Your task to perform on an android device: Empty the shopping cart on amazon.com. Image 0: 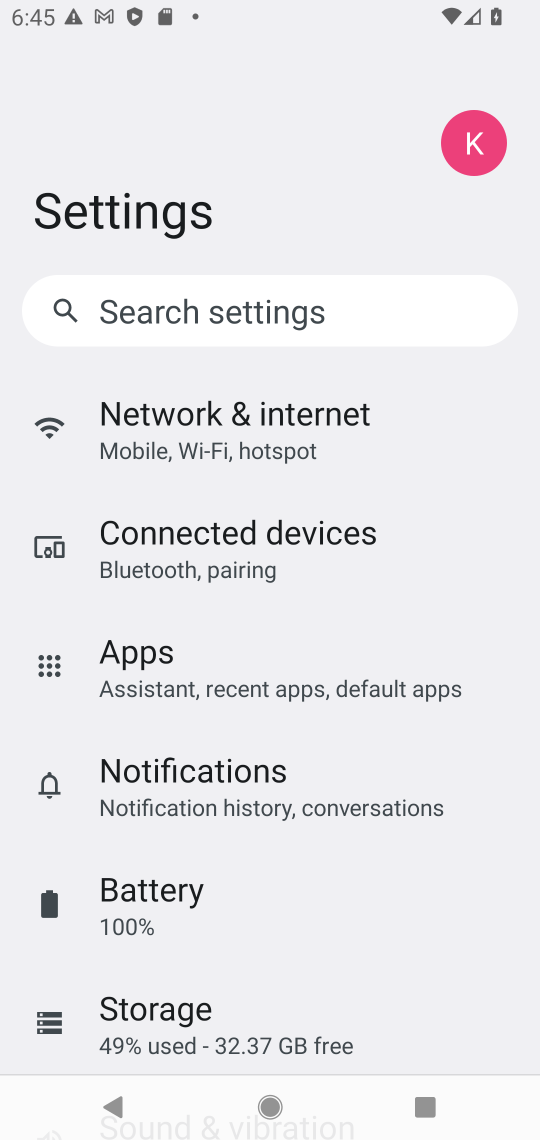
Step 0: press home button
Your task to perform on an android device: Empty the shopping cart on amazon.com. Image 1: 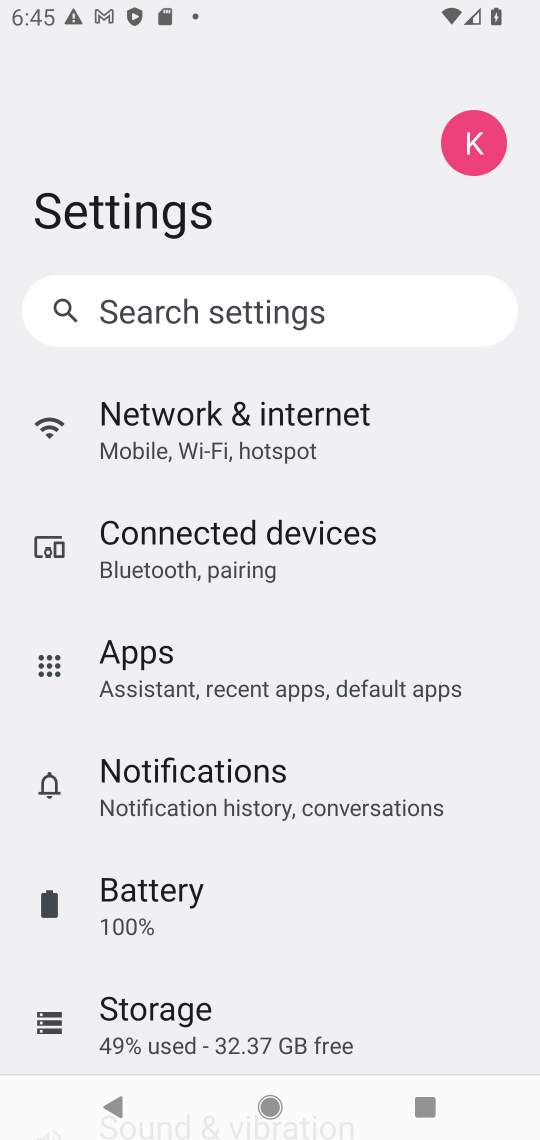
Step 1: press home button
Your task to perform on an android device: Empty the shopping cart on amazon.com. Image 2: 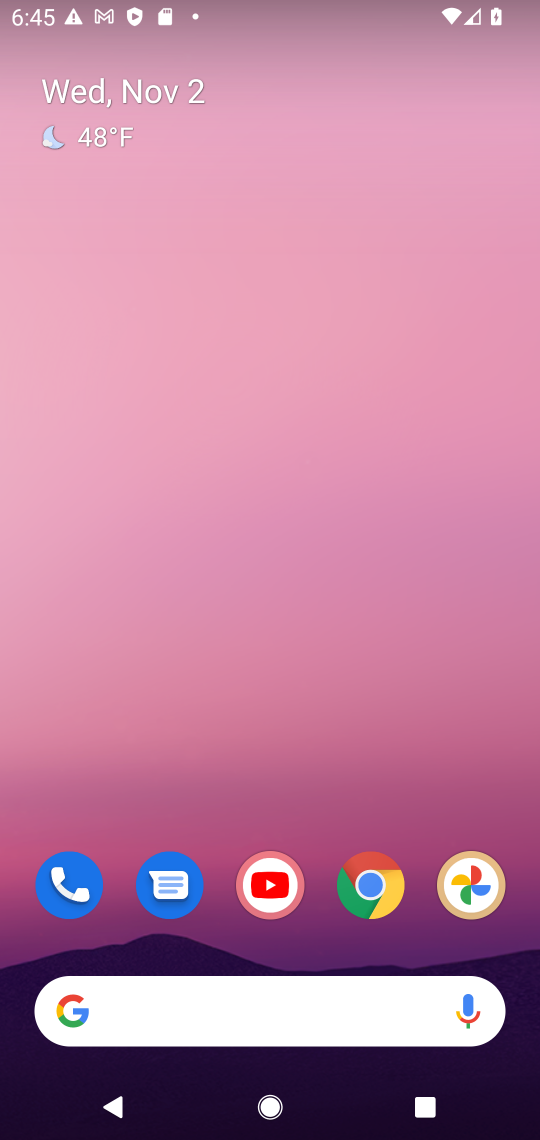
Step 2: click (369, 887)
Your task to perform on an android device: Empty the shopping cart on amazon.com. Image 3: 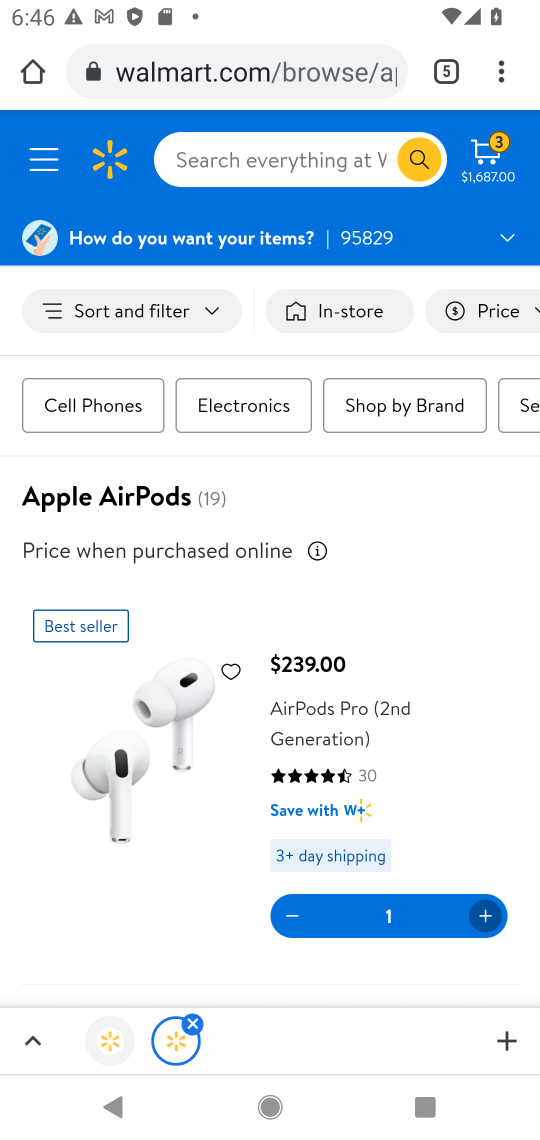
Step 3: click (501, 78)
Your task to perform on an android device: Empty the shopping cart on amazon.com. Image 4: 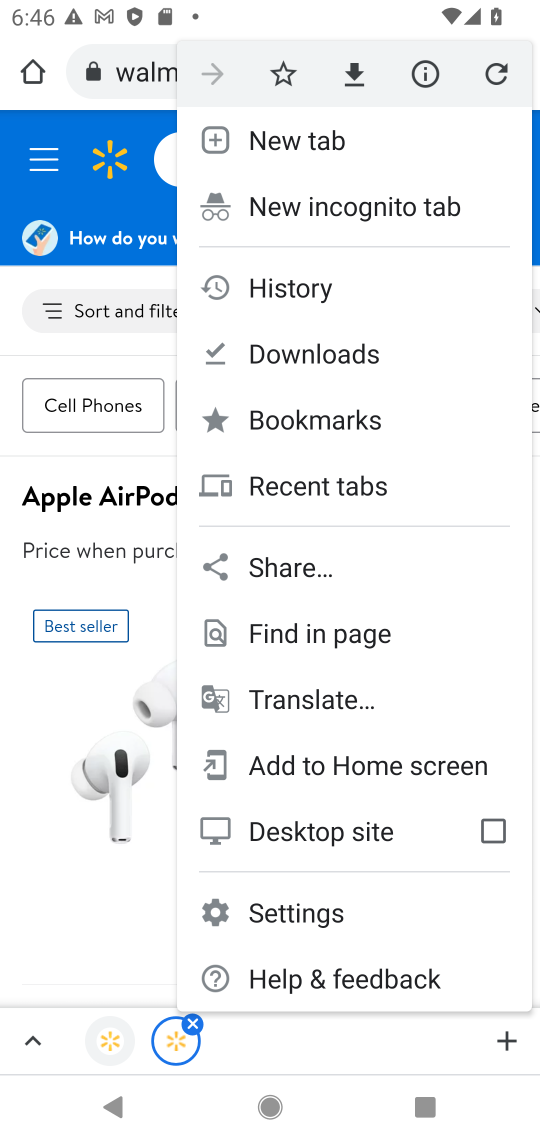
Step 4: click (309, 137)
Your task to perform on an android device: Empty the shopping cart on amazon.com. Image 5: 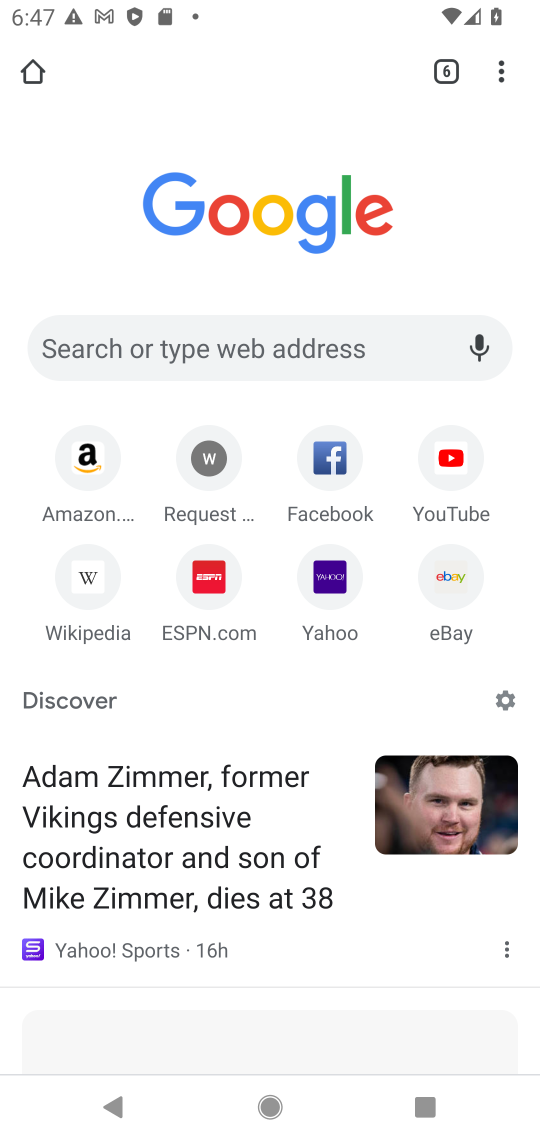
Step 5: click (94, 467)
Your task to perform on an android device: Empty the shopping cart on amazon.com. Image 6: 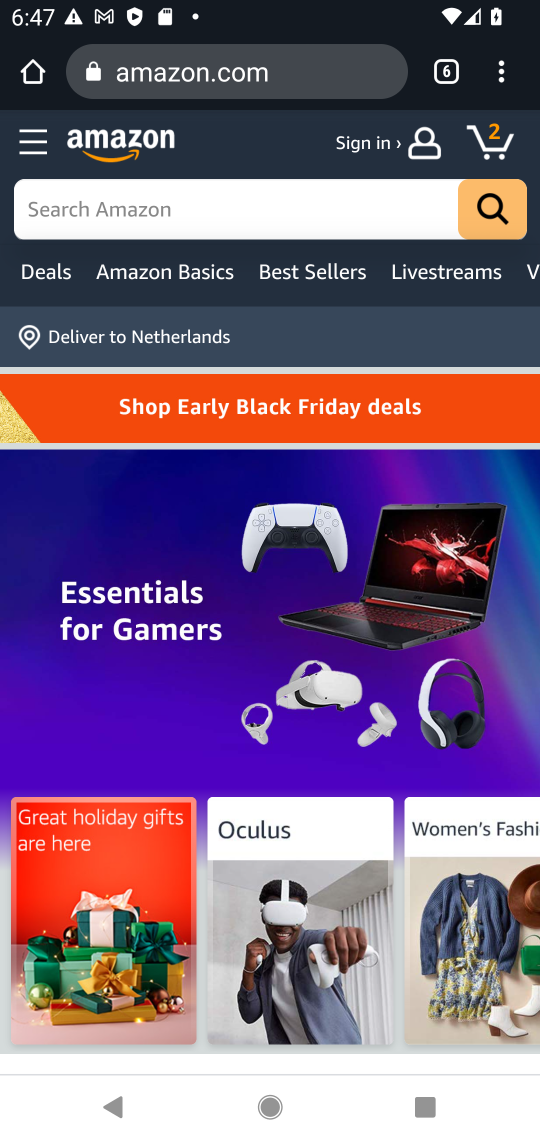
Step 6: click (498, 142)
Your task to perform on an android device: Empty the shopping cart on amazon.com. Image 7: 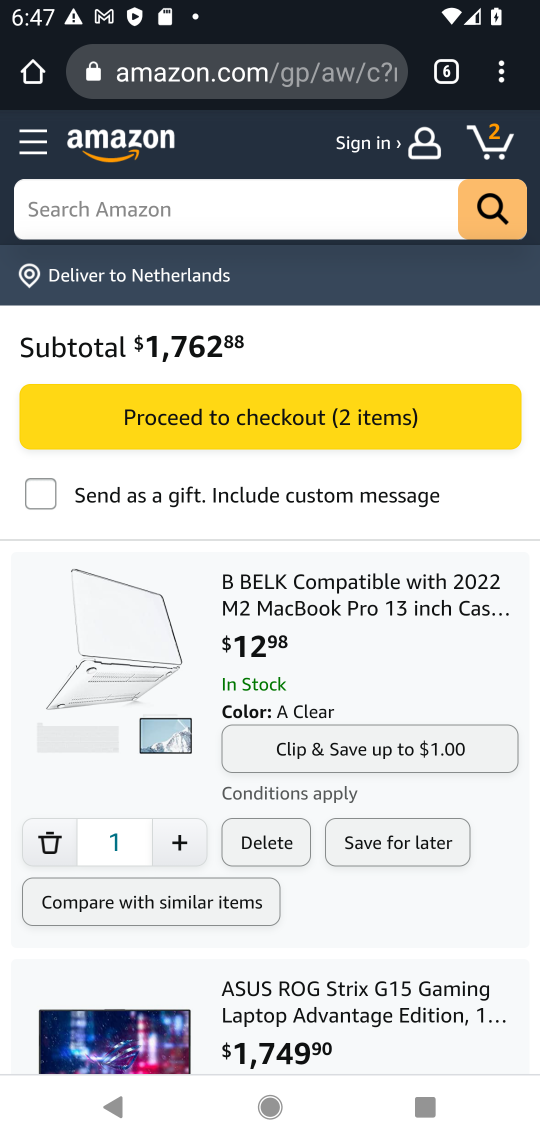
Step 7: drag from (256, 862) to (265, 487)
Your task to perform on an android device: Empty the shopping cart on amazon.com. Image 8: 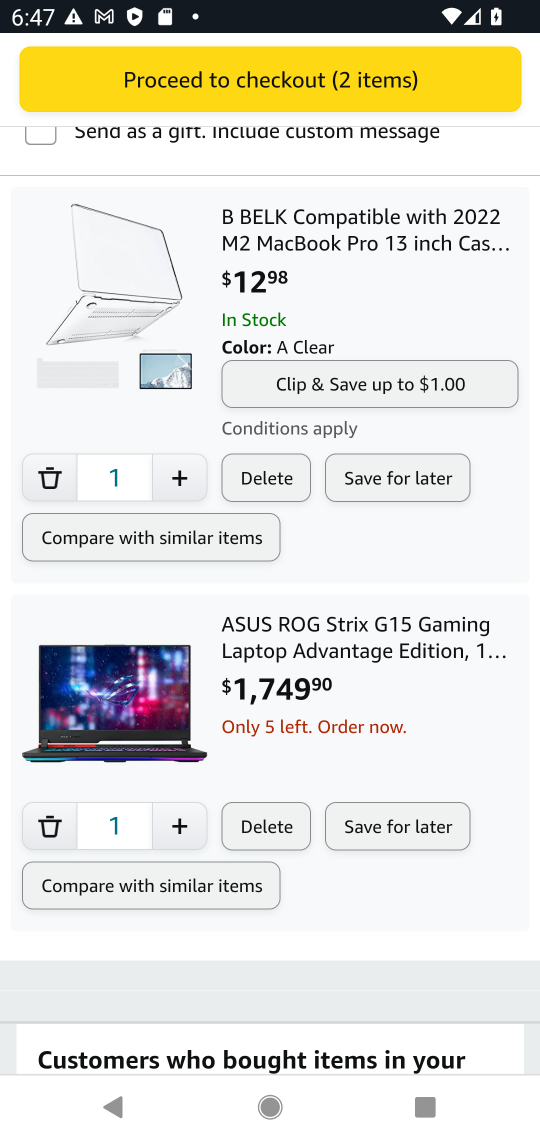
Step 8: drag from (356, 996) to (340, 822)
Your task to perform on an android device: Empty the shopping cart on amazon.com. Image 9: 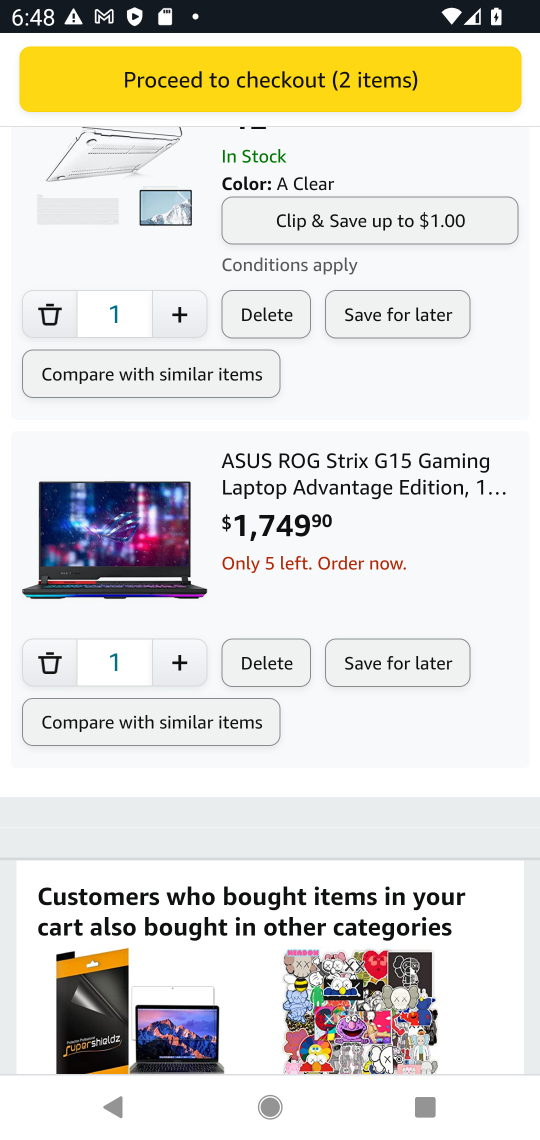
Step 9: drag from (318, 139) to (348, 685)
Your task to perform on an android device: Empty the shopping cart on amazon.com. Image 10: 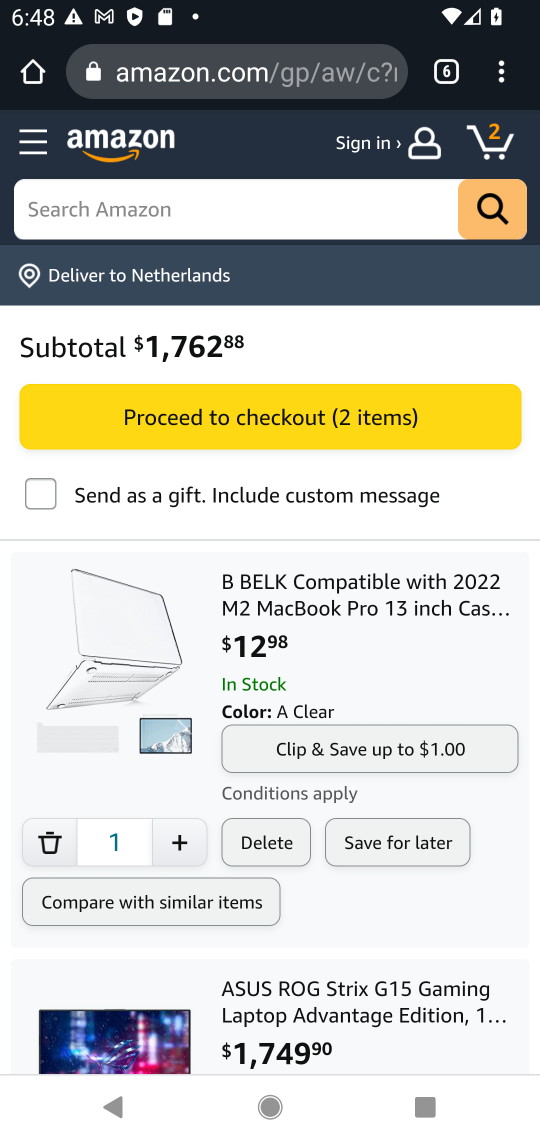
Step 10: drag from (328, 965) to (325, 844)
Your task to perform on an android device: Empty the shopping cart on amazon.com. Image 11: 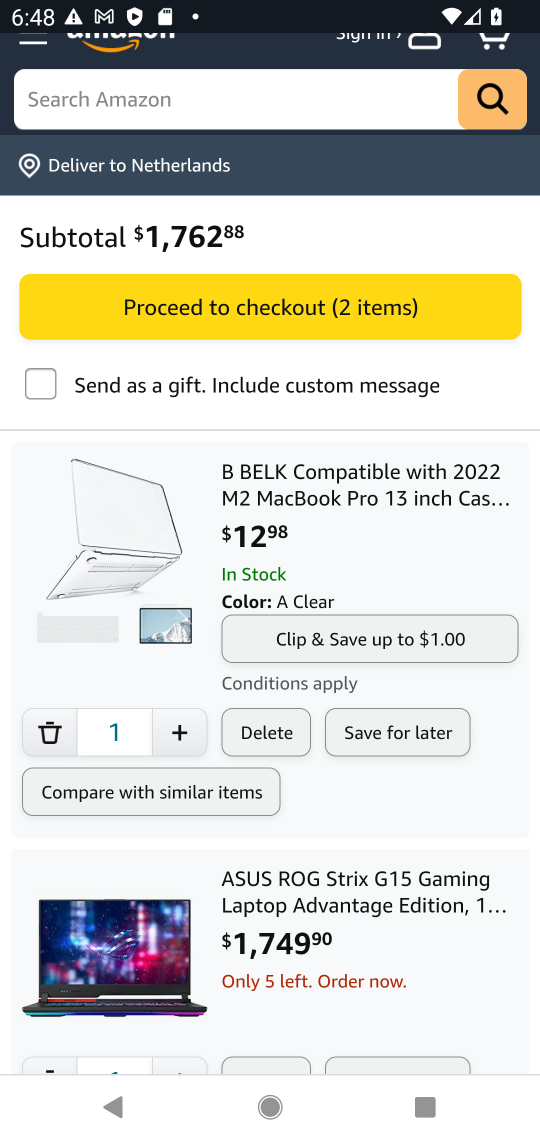
Step 11: click (277, 727)
Your task to perform on an android device: Empty the shopping cart on amazon.com. Image 12: 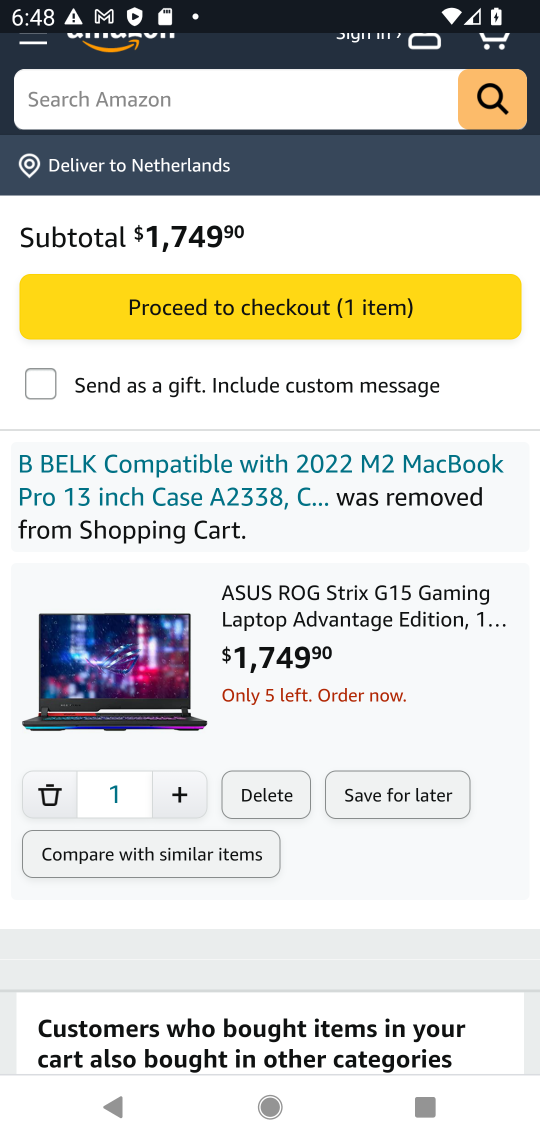
Step 12: click (275, 795)
Your task to perform on an android device: Empty the shopping cart on amazon.com. Image 13: 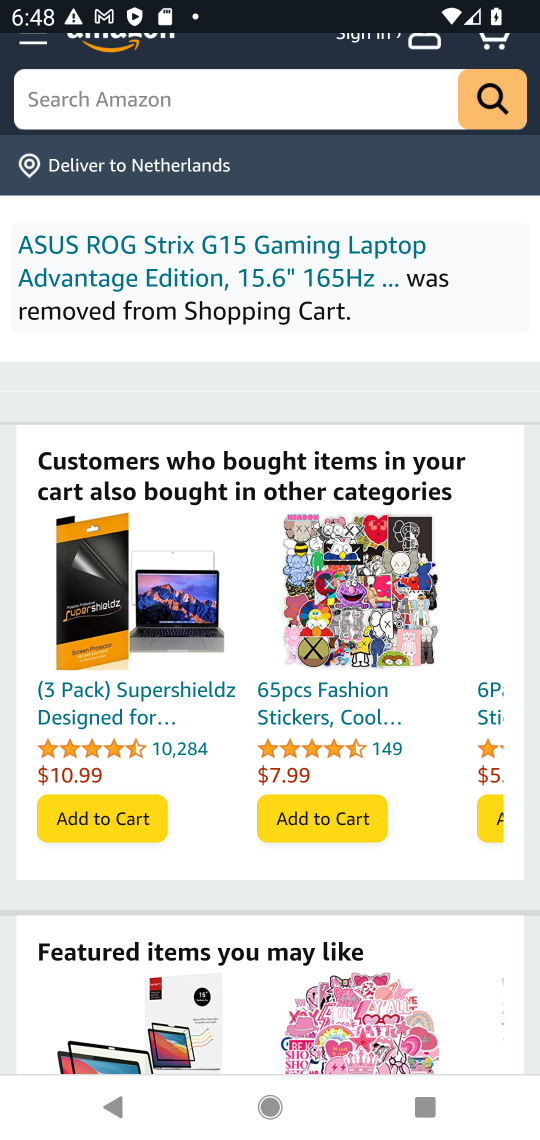
Step 13: task complete